Your task to perform on an android device: turn notification dots on Image 0: 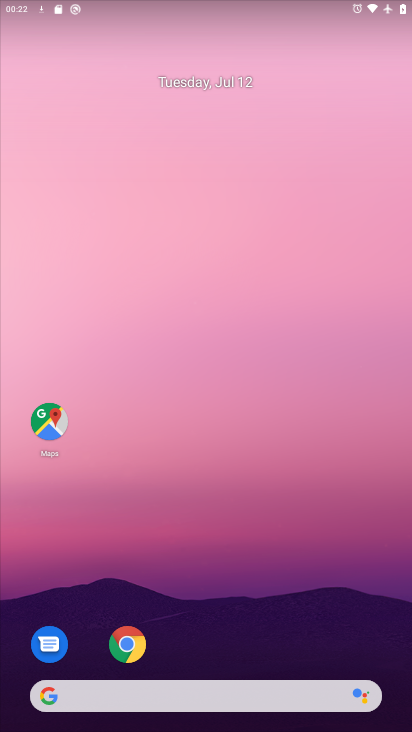
Step 0: drag from (171, 631) to (313, 256)
Your task to perform on an android device: turn notification dots on Image 1: 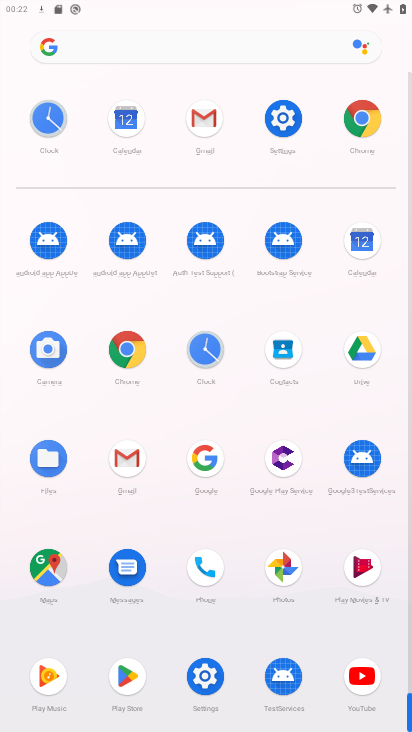
Step 1: click (286, 129)
Your task to perform on an android device: turn notification dots on Image 2: 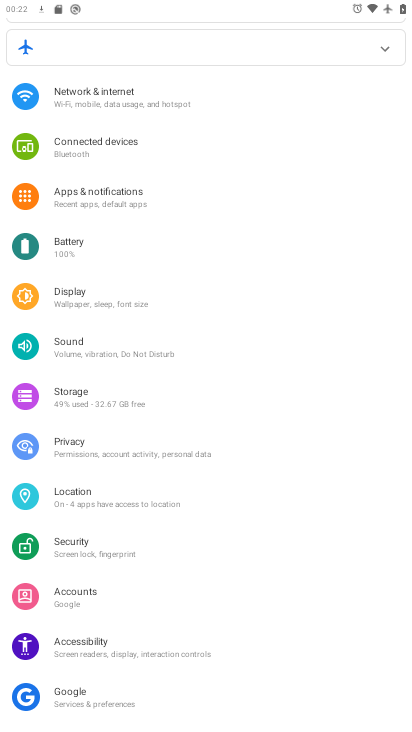
Step 2: drag from (161, 181) to (171, 562)
Your task to perform on an android device: turn notification dots on Image 3: 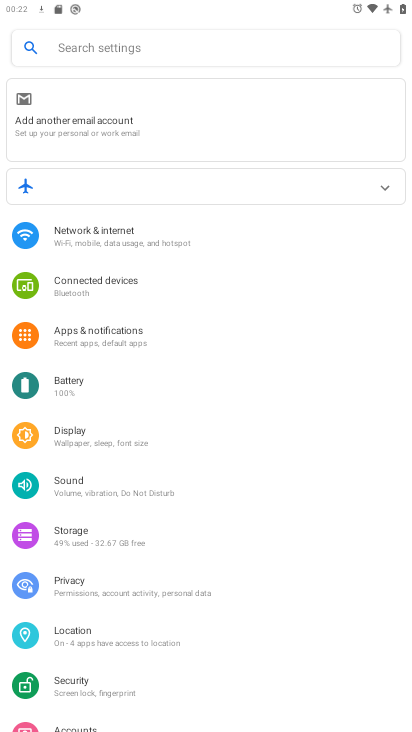
Step 3: click (182, 37)
Your task to perform on an android device: turn notification dots on Image 4: 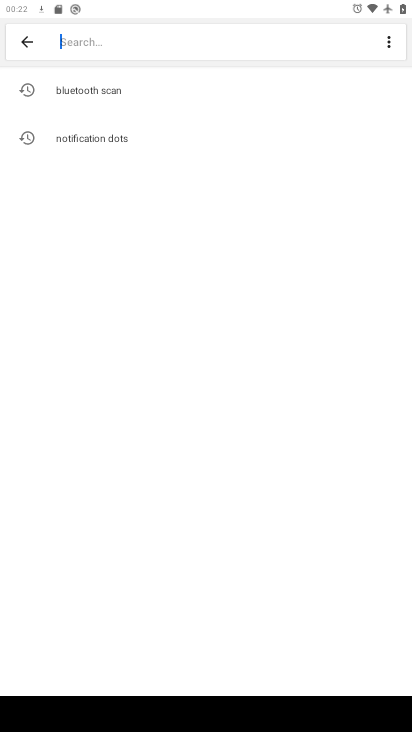
Step 4: click (118, 129)
Your task to perform on an android device: turn notification dots on Image 5: 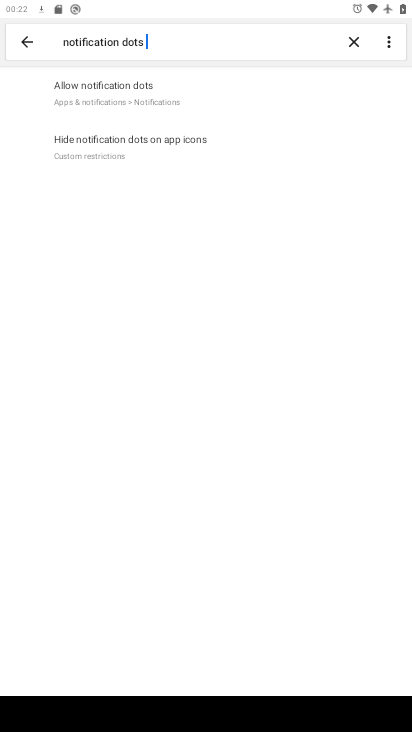
Step 5: click (180, 90)
Your task to perform on an android device: turn notification dots on Image 6: 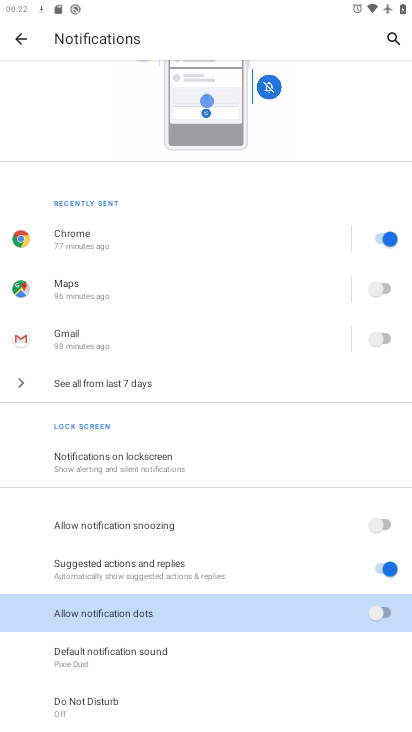
Step 6: click (374, 609)
Your task to perform on an android device: turn notification dots on Image 7: 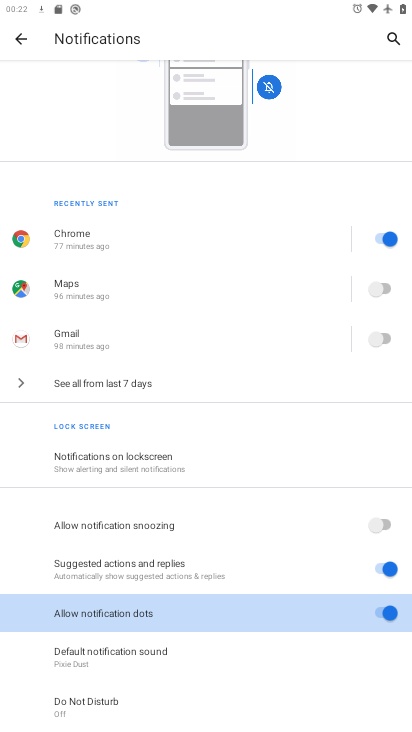
Step 7: task complete